Your task to perform on an android device: Go to Amazon Image 0: 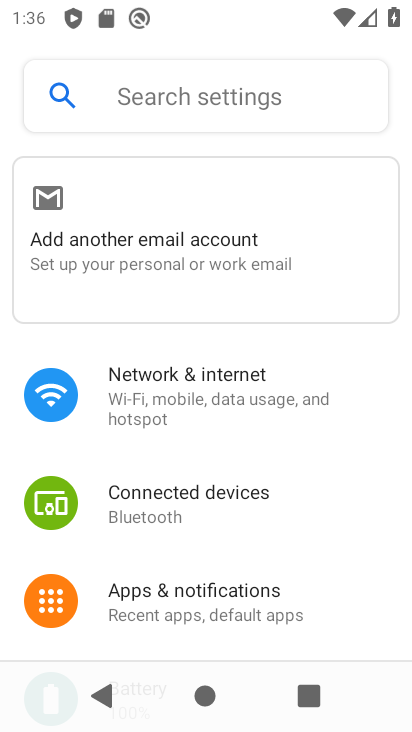
Step 0: press home button
Your task to perform on an android device: Go to Amazon Image 1: 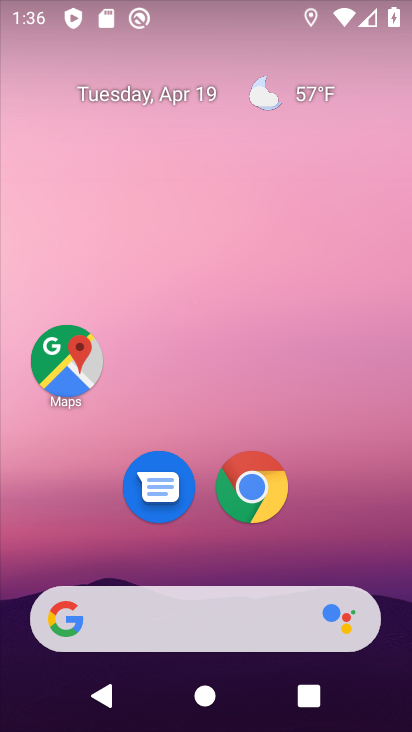
Step 1: click (241, 472)
Your task to perform on an android device: Go to Amazon Image 2: 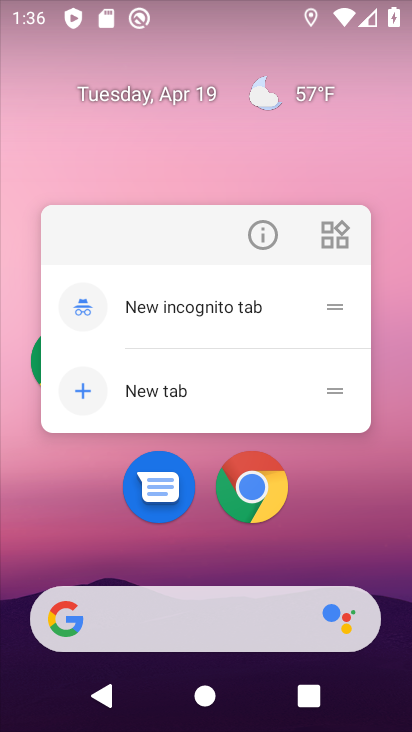
Step 2: click (242, 496)
Your task to perform on an android device: Go to Amazon Image 3: 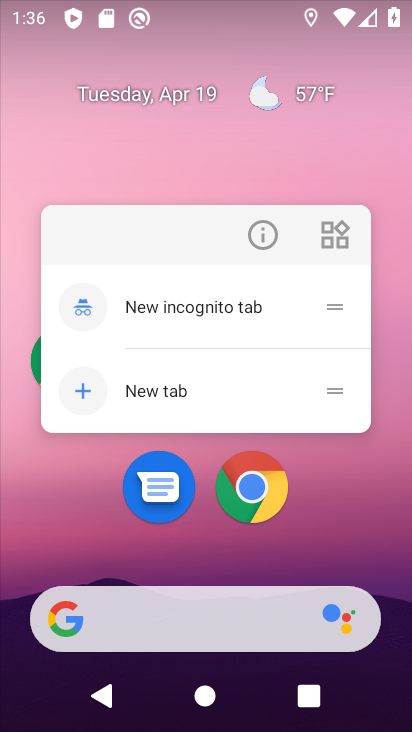
Step 3: click (242, 496)
Your task to perform on an android device: Go to Amazon Image 4: 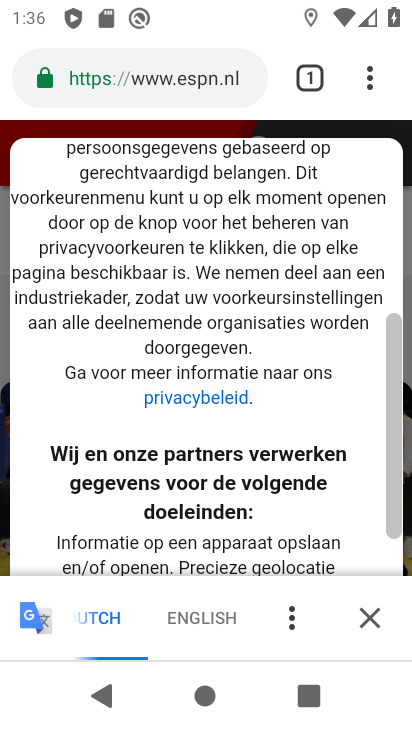
Step 4: click (310, 84)
Your task to perform on an android device: Go to Amazon Image 5: 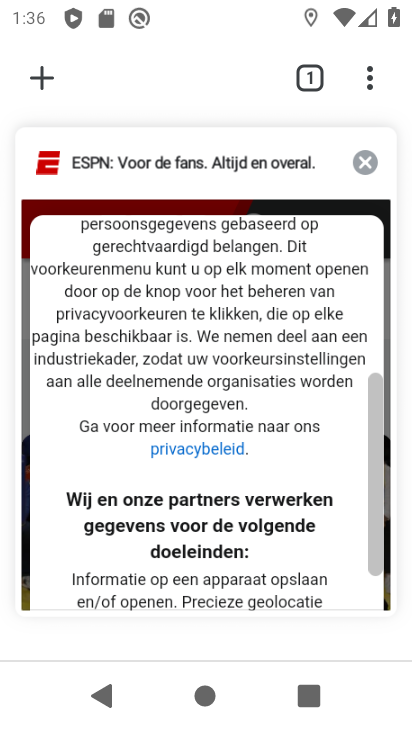
Step 5: click (39, 71)
Your task to perform on an android device: Go to Amazon Image 6: 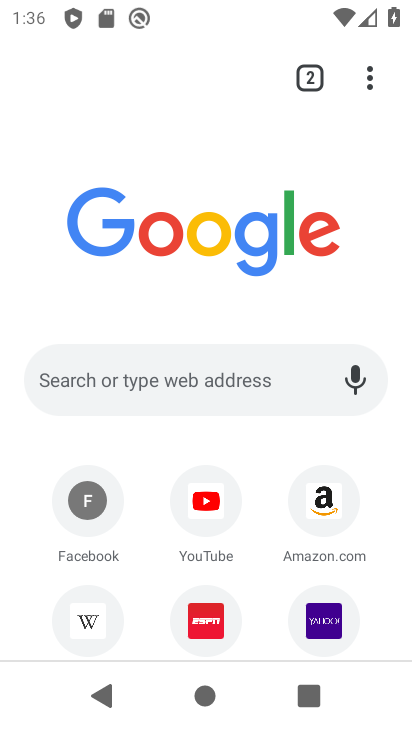
Step 6: click (319, 535)
Your task to perform on an android device: Go to Amazon Image 7: 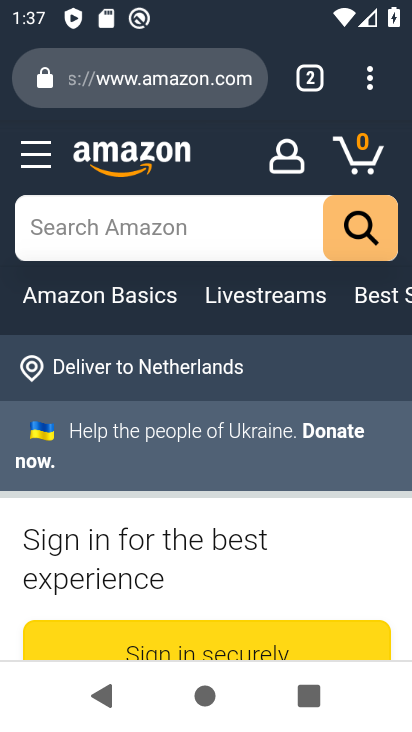
Step 7: task complete